Your task to perform on an android device: Go to ESPN.com Image 0: 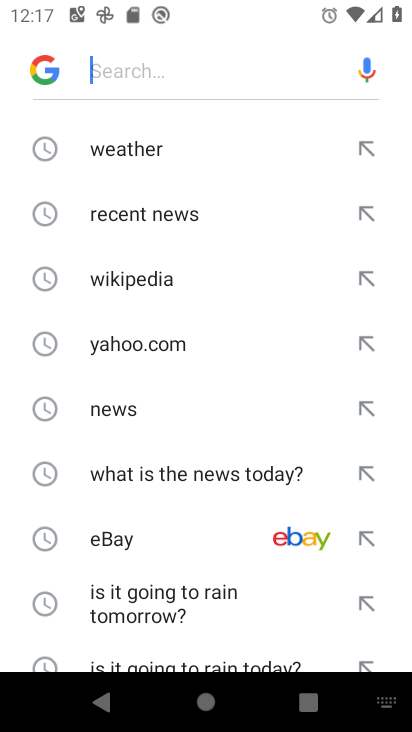
Step 0: press home button
Your task to perform on an android device: Go to ESPN.com Image 1: 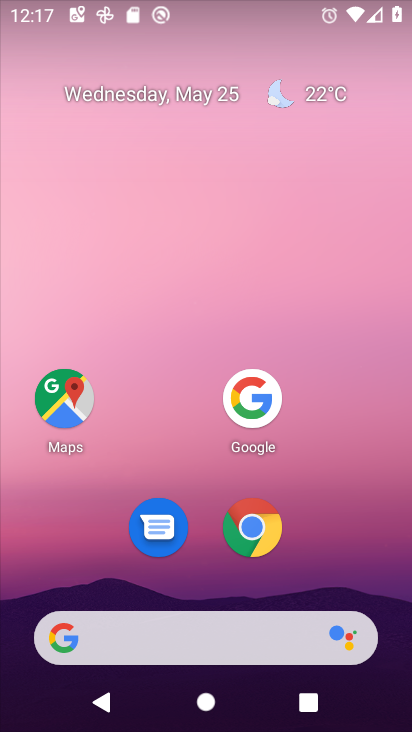
Step 1: click (242, 537)
Your task to perform on an android device: Go to ESPN.com Image 2: 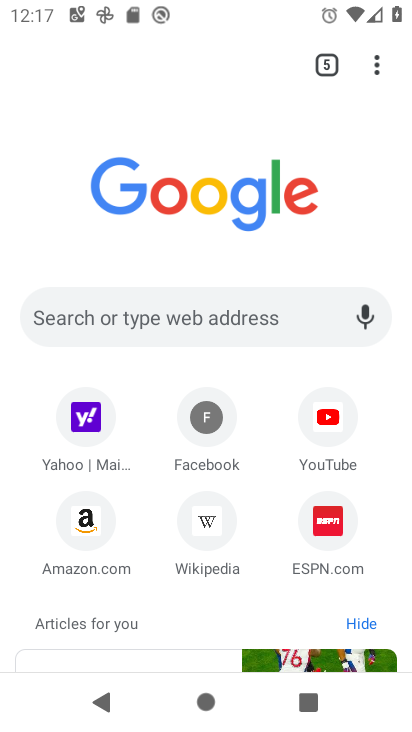
Step 2: click (335, 516)
Your task to perform on an android device: Go to ESPN.com Image 3: 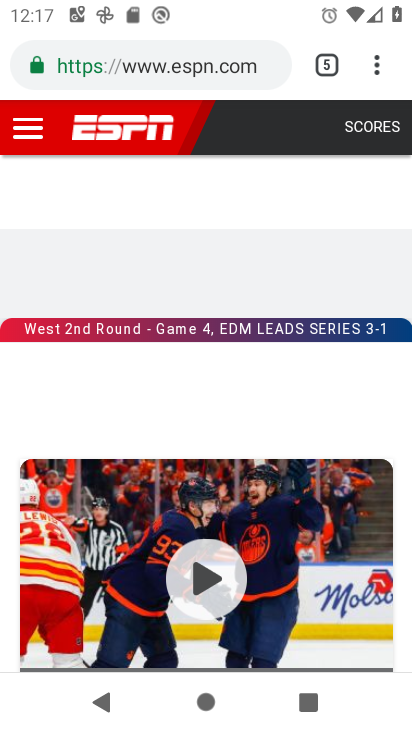
Step 3: task complete